Your task to perform on an android device: toggle sleep mode Image 0: 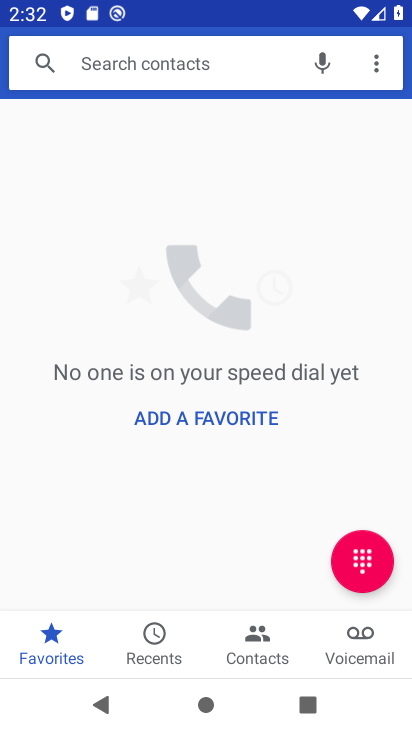
Step 0: press home button
Your task to perform on an android device: toggle sleep mode Image 1: 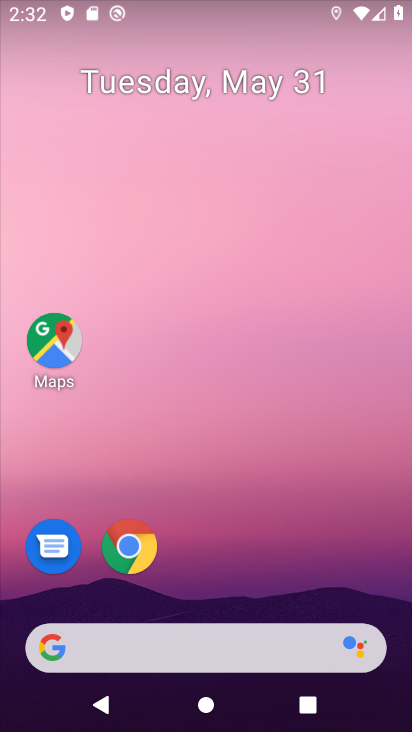
Step 1: drag from (239, 546) to (264, 52)
Your task to perform on an android device: toggle sleep mode Image 2: 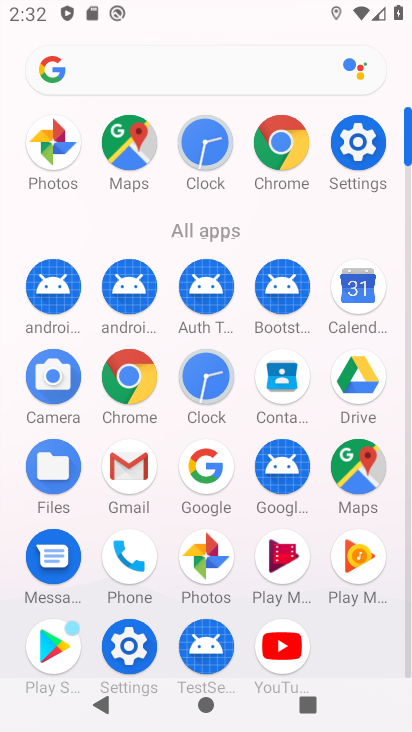
Step 2: click (360, 146)
Your task to perform on an android device: toggle sleep mode Image 3: 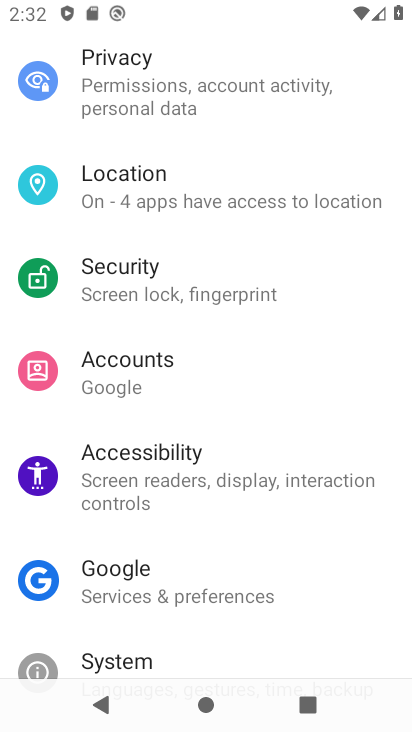
Step 3: drag from (261, 174) to (241, 478)
Your task to perform on an android device: toggle sleep mode Image 4: 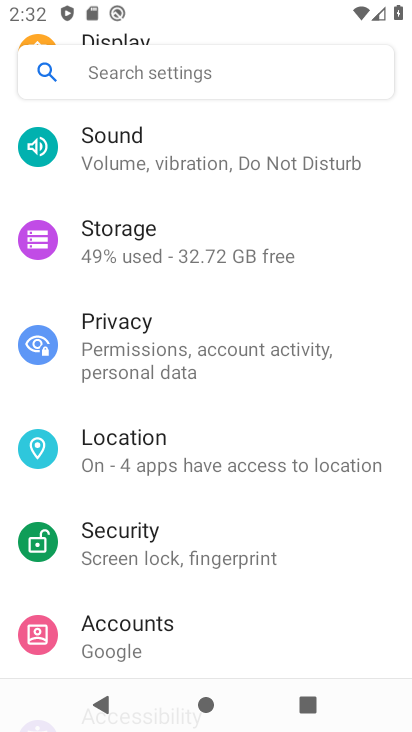
Step 4: drag from (218, 254) to (199, 552)
Your task to perform on an android device: toggle sleep mode Image 5: 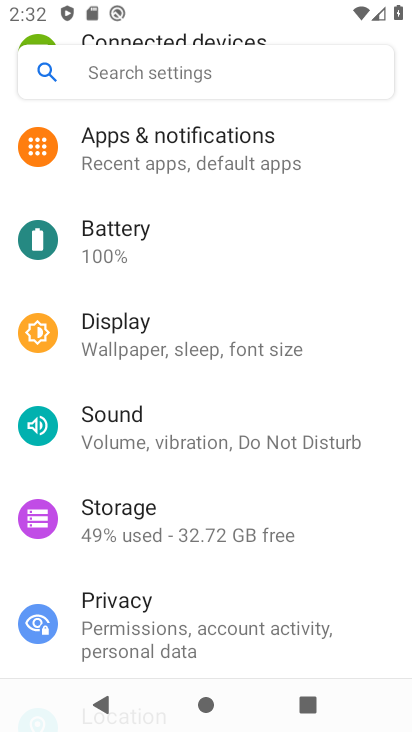
Step 5: click (212, 350)
Your task to perform on an android device: toggle sleep mode Image 6: 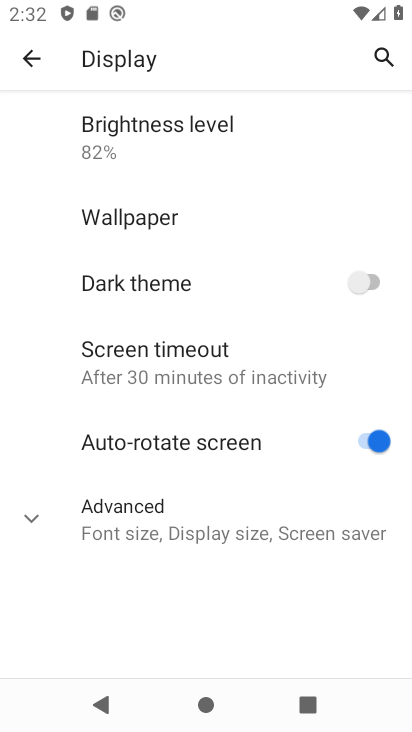
Step 6: task complete